Your task to perform on an android device: Go to Maps Image 0: 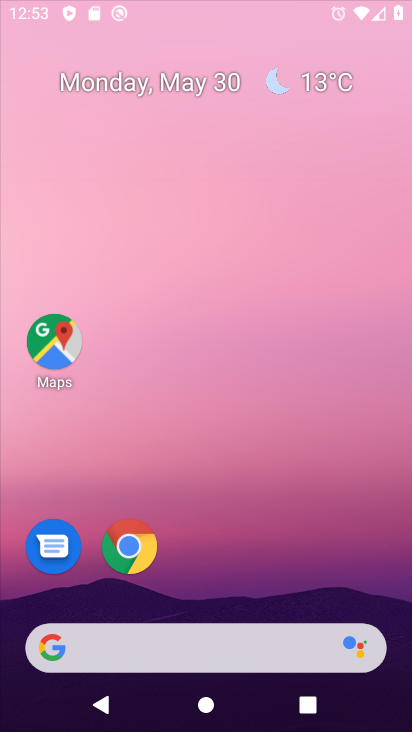
Step 0: press home button
Your task to perform on an android device: Go to Maps Image 1: 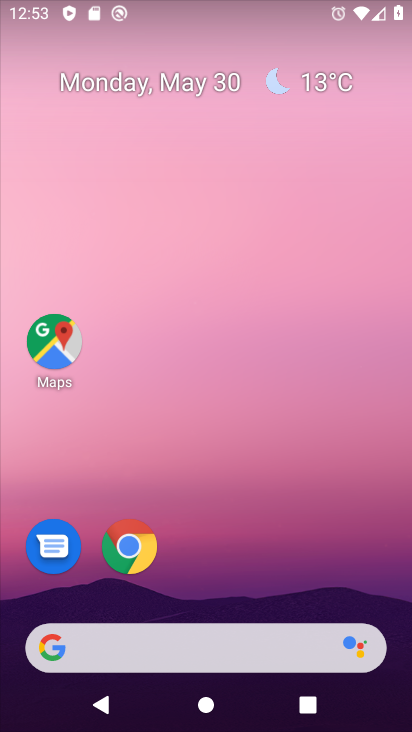
Step 1: click (57, 345)
Your task to perform on an android device: Go to Maps Image 2: 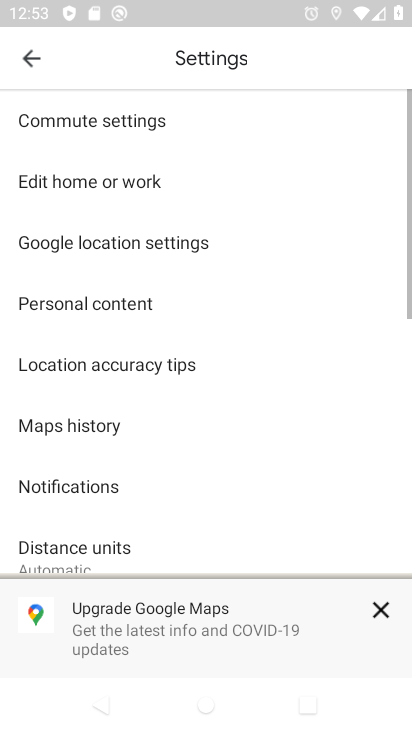
Step 2: click (31, 52)
Your task to perform on an android device: Go to Maps Image 3: 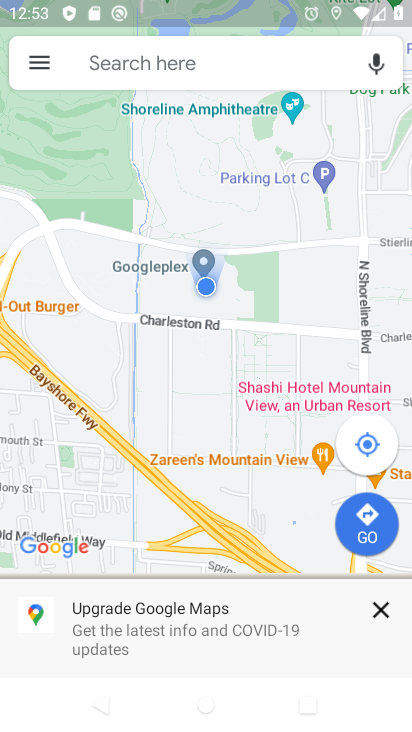
Step 3: task complete